Your task to perform on an android device: toggle priority inbox in the gmail app Image 0: 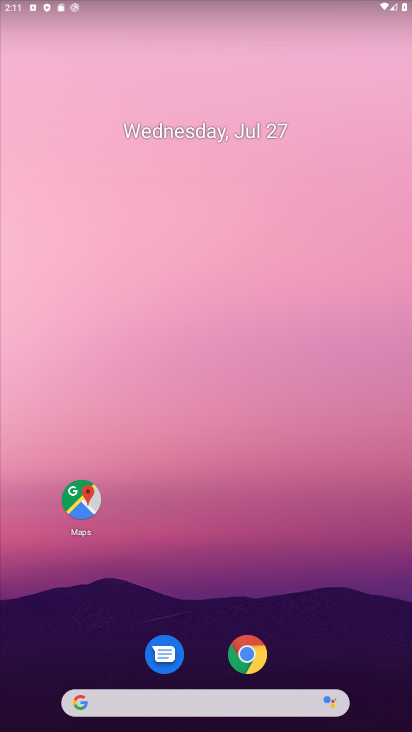
Step 0: drag from (63, 474) to (210, 108)
Your task to perform on an android device: toggle priority inbox in the gmail app Image 1: 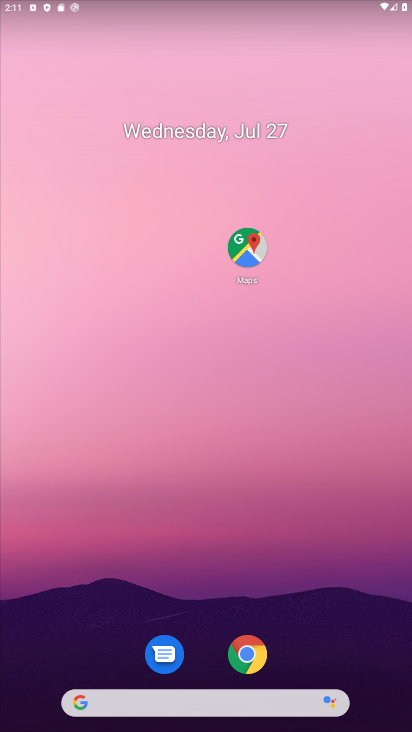
Step 1: drag from (32, 496) to (153, 85)
Your task to perform on an android device: toggle priority inbox in the gmail app Image 2: 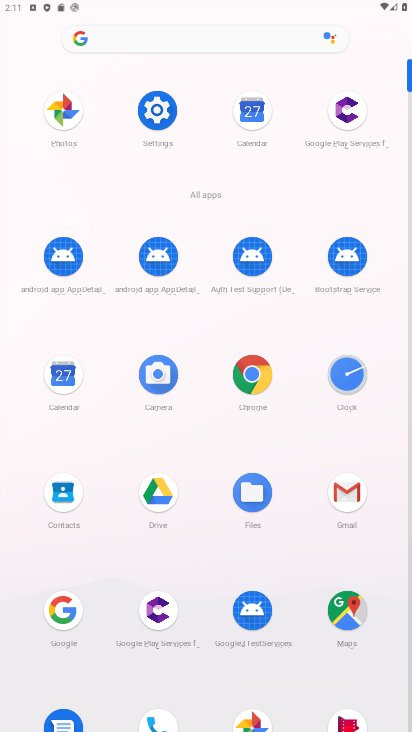
Step 2: click (341, 487)
Your task to perform on an android device: toggle priority inbox in the gmail app Image 3: 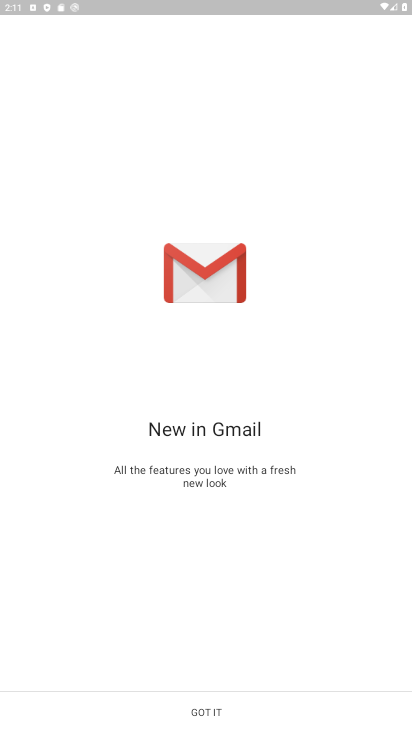
Step 3: click (216, 708)
Your task to perform on an android device: toggle priority inbox in the gmail app Image 4: 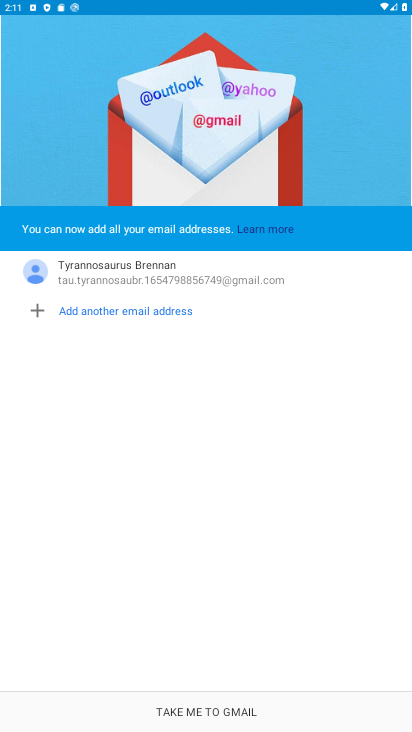
Step 4: click (217, 708)
Your task to perform on an android device: toggle priority inbox in the gmail app Image 5: 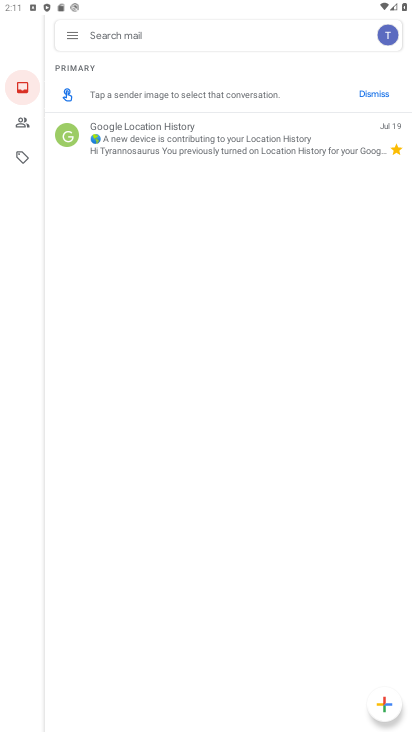
Step 5: click (80, 36)
Your task to perform on an android device: toggle priority inbox in the gmail app Image 6: 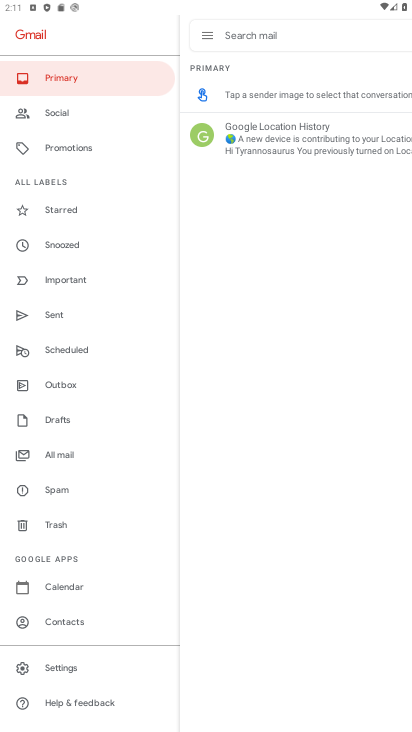
Step 6: click (64, 669)
Your task to perform on an android device: toggle priority inbox in the gmail app Image 7: 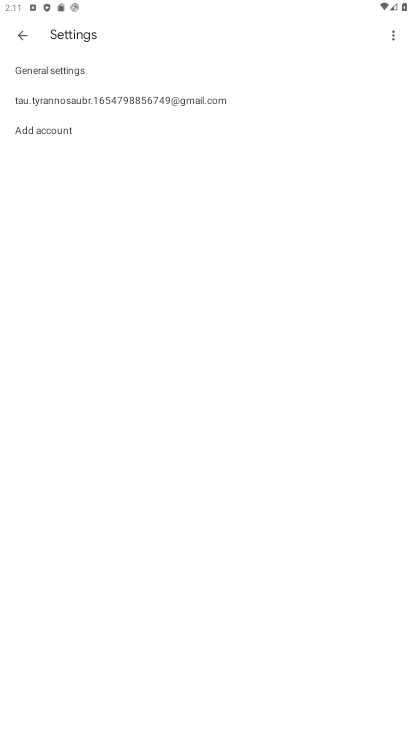
Step 7: click (25, 96)
Your task to perform on an android device: toggle priority inbox in the gmail app Image 8: 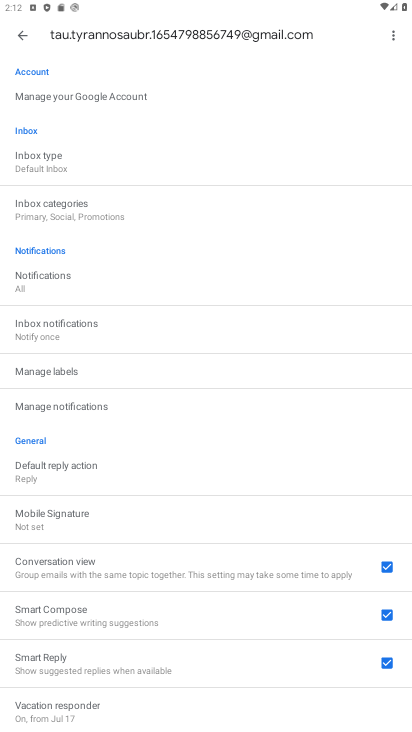
Step 8: click (88, 164)
Your task to perform on an android device: toggle priority inbox in the gmail app Image 9: 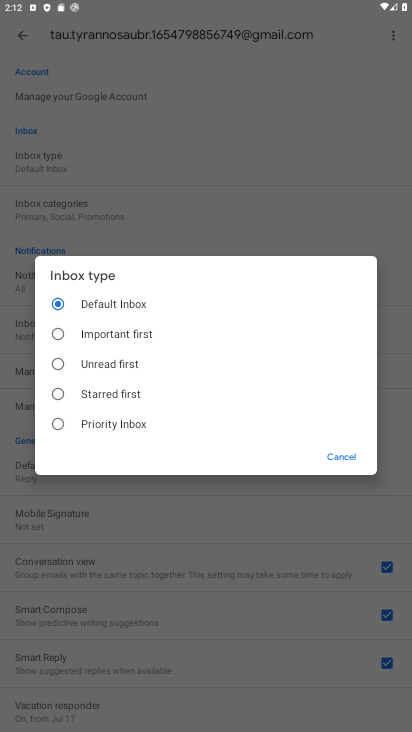
Step 9: click (114, 426)
Your task to perform on an android device: toggle priority inbox in the gmail app Image 10: 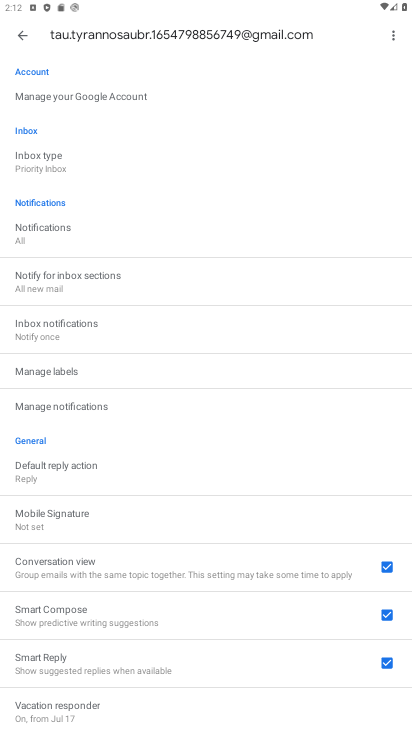
Step 10: task complete